Your task to perform on an android device: turn off translation in the chrome app Image 0: 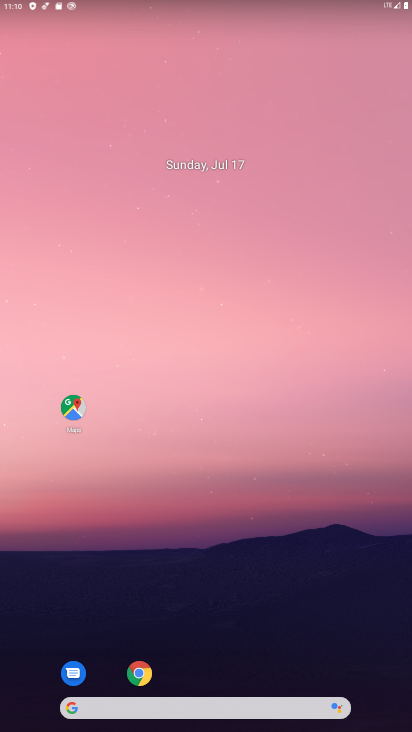
Step 0: click (144, 672)
Your task to perform on an android device: turn off translation in the chrome app Image 1: 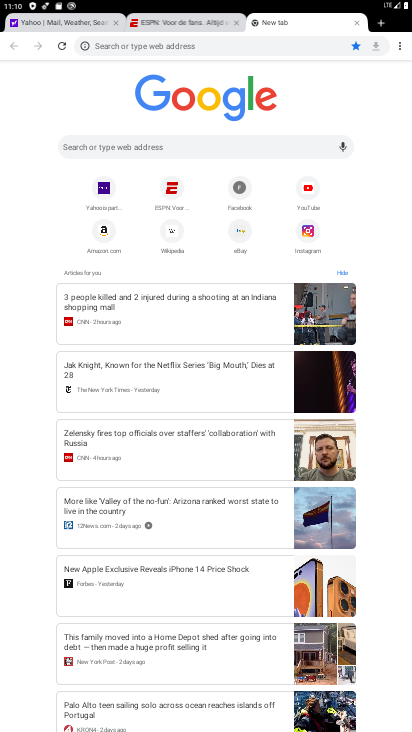
Step 1: click (398, 49)
Your task to perform on an android device: turn off translation in the chrome app Image 2: 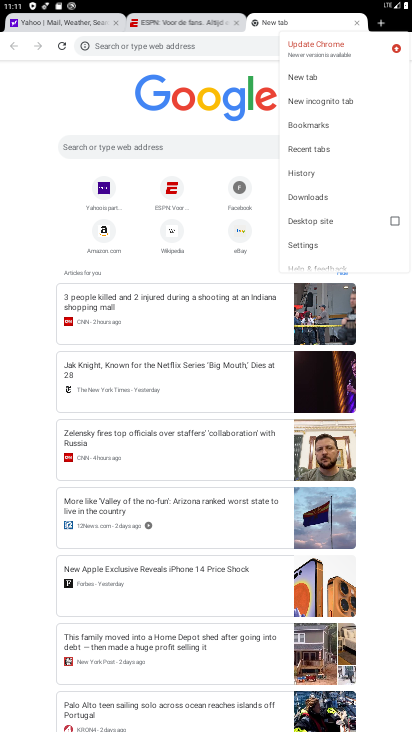
Step 2: click (306, 244)
Your task to perform on an android device: turn off translation in the chrome app Image 3: 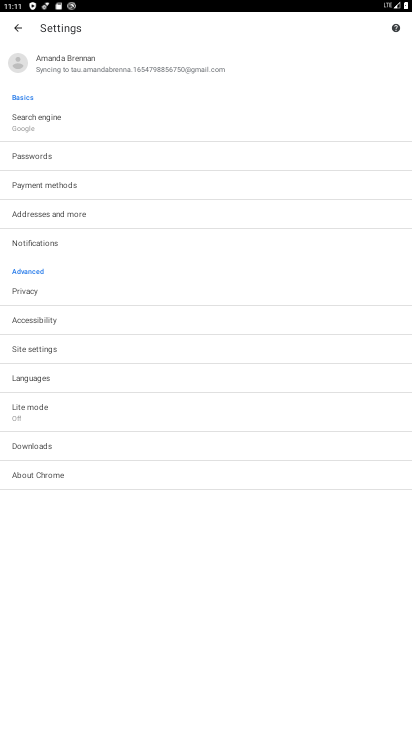
Step 3: click (34, 376)
Your task to perform on an android device: turn off translation in the chrome app Image 4: 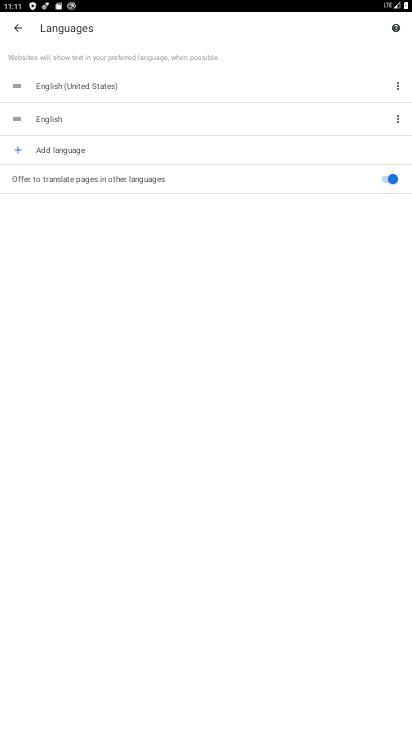
Step 4: click (391, 176)
Your task to perform on an android device: turn off translation in the chrome app Image 5: 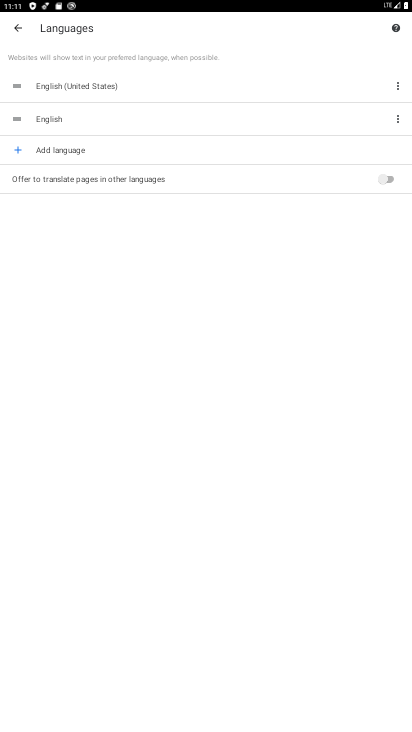
Step 5: task complete